Your task to perform on an android device: turn off improve location accuracy Image 0: 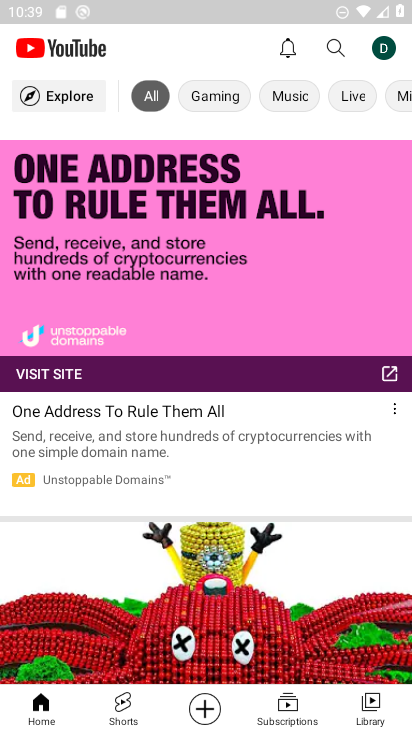
Step 0: press home button
Your task to perform on an android device: turn off improve location accuracy Image 1: 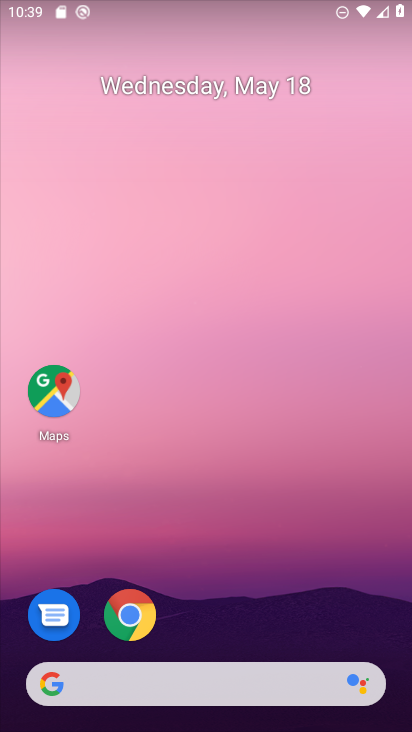
Step 1: drag from (214, 551) to (257, 50)
Your task to perform on an android device: turn off improve location accuracy Image 2: 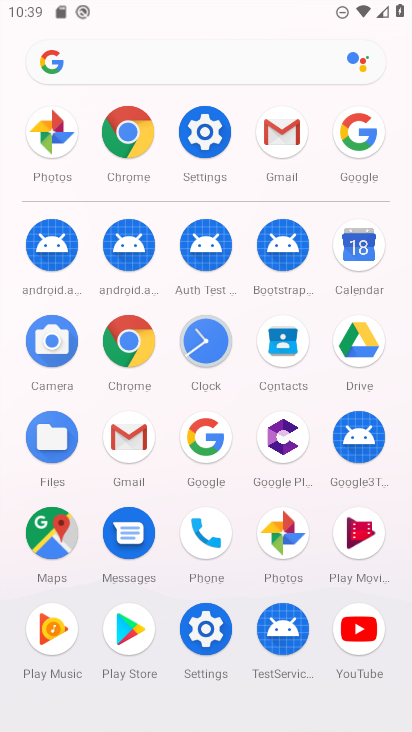
Step 2: click (200, 642)
Your task to perform on an android device: turn off improve location accuracy Image 3: 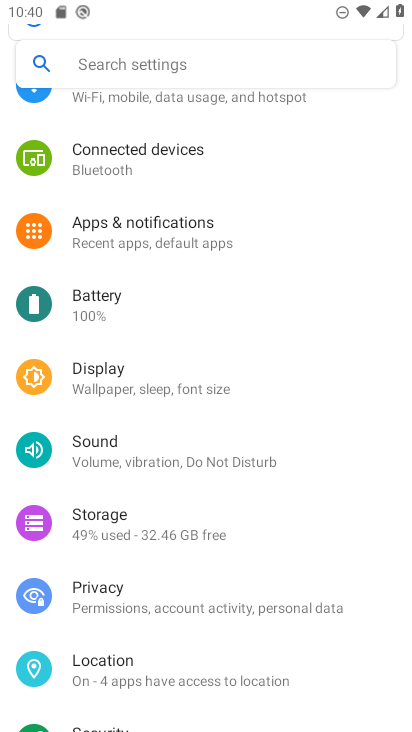
Step 3: click (132, 677)
Your task to perform on an android device: turn off improve location accuracy Image 4: 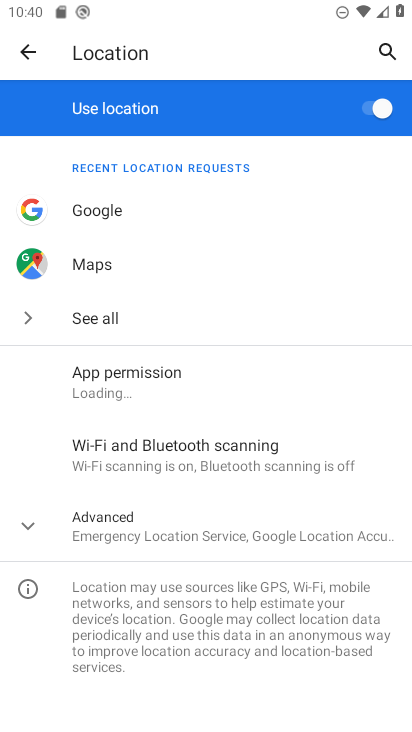
Step 4: click (132, 531)
Your task to perform on an android device: turn off improve location accuracy Image 5: 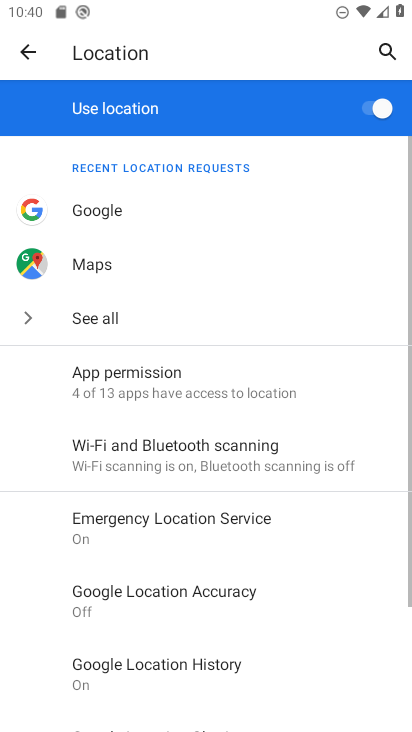
Step 5: drag from (240, 620) to (247, 456)
Your task to perform on an android device: turn off improve location accuracy Image 6: 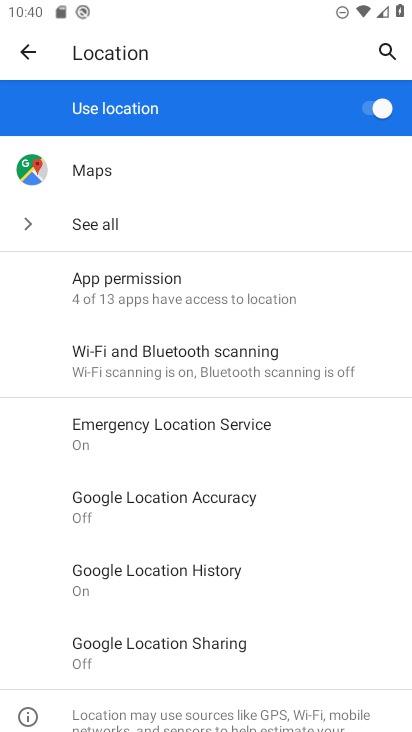
Step 6: click (142, 505)
Your task to perform on an android device: turn off improve location accuracy Image 7: 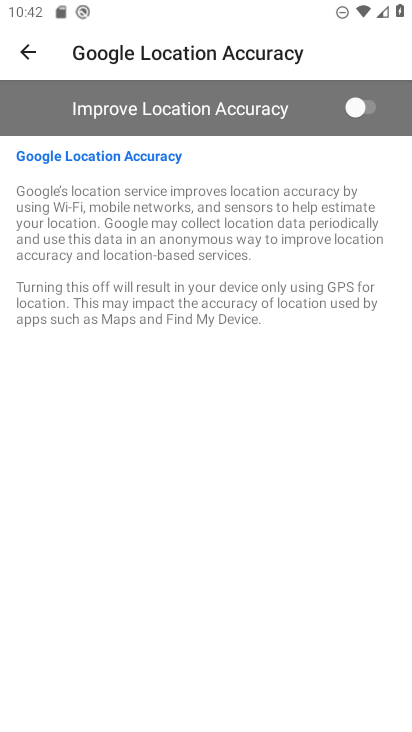
Step 7: task complete